Your task to perform on an android device: turn off javascript in the chrome app Image 0: 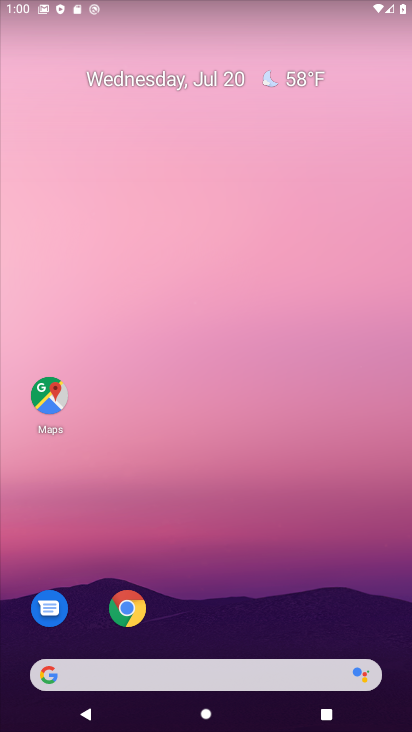
Step 0: click (124, 606)
Your task to perform on an android device: turn off javascript in the chrome app Image 1: 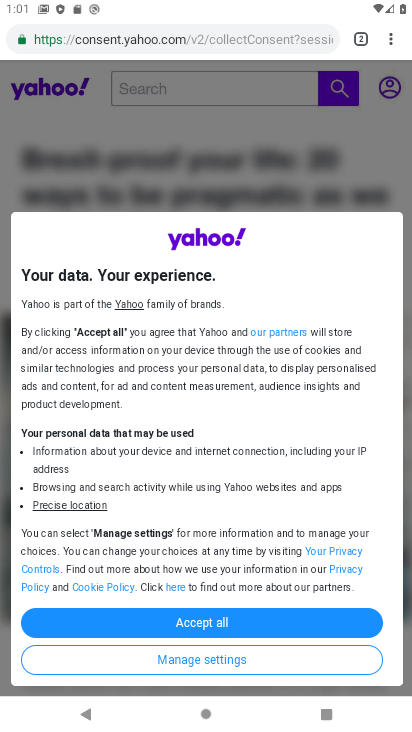
Step 1: click (390, 40)
Your task to perform on an android device: turn off javascript in the chrome app Image 2: 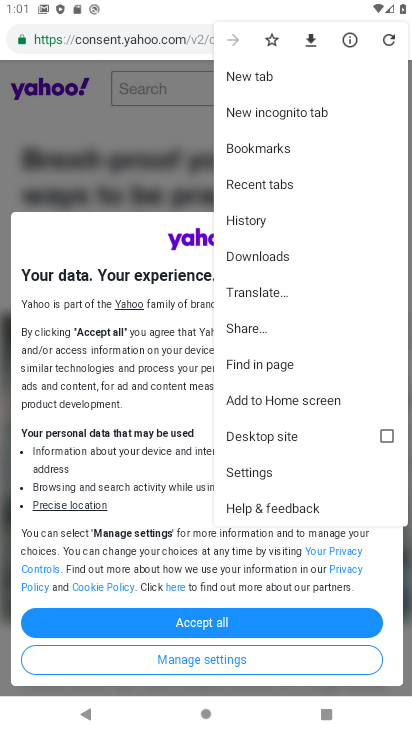
Step 2: click (245, 469)
Your task to perform on an android device: turn off javascript in the chrome app Image 3: 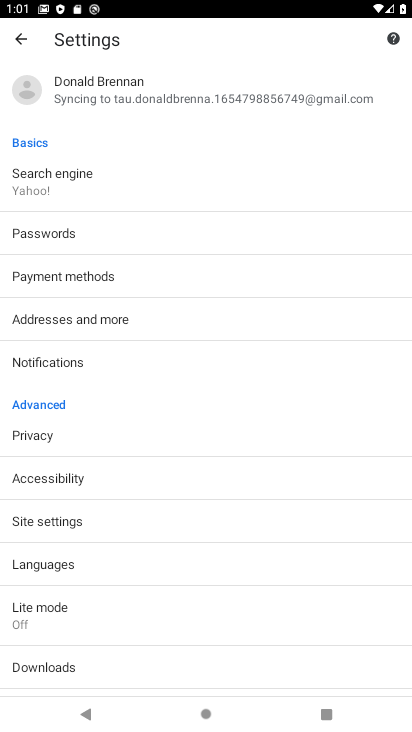
Step 3: click (42, 518)
Your task to perform on an android device: turn off javascript in the chrome app Image 4: 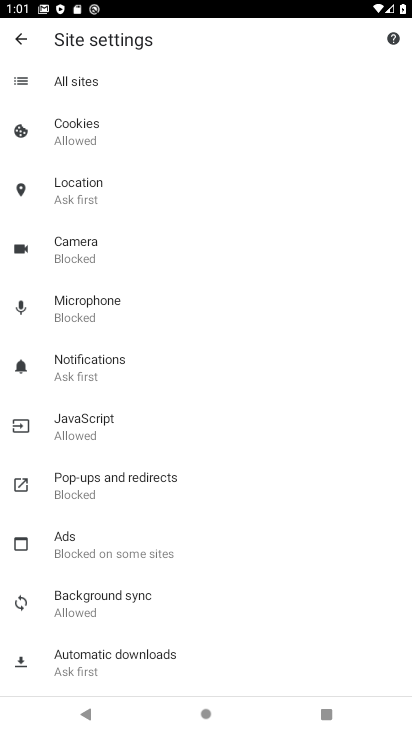
Step 4: click (68, 427)
Your task to perform on an android device: turn off javascript in the chrome app Image 5: 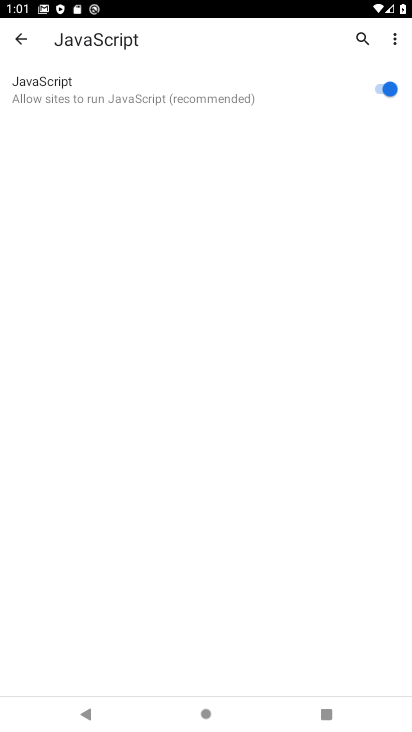
Step 5: click (383, 87)
Your task to perform on an android device: turn off javascript in the chrome app Image 6: 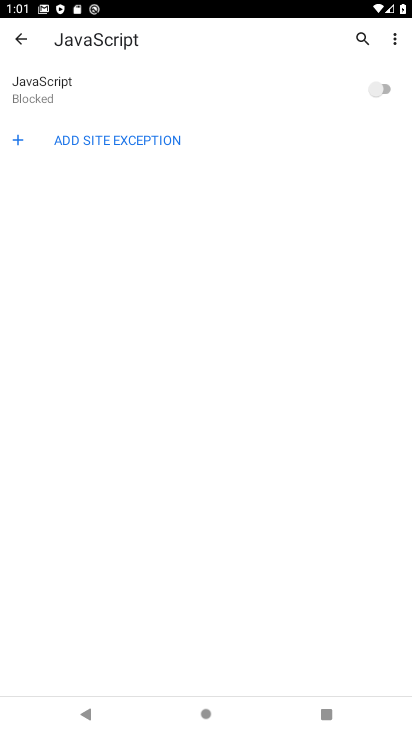
Step 6: task complete